Your task to perform on an android device: open app "ColorNote Notepad Notes" (install if not already installed), go to login, and select forgot password Image 0: 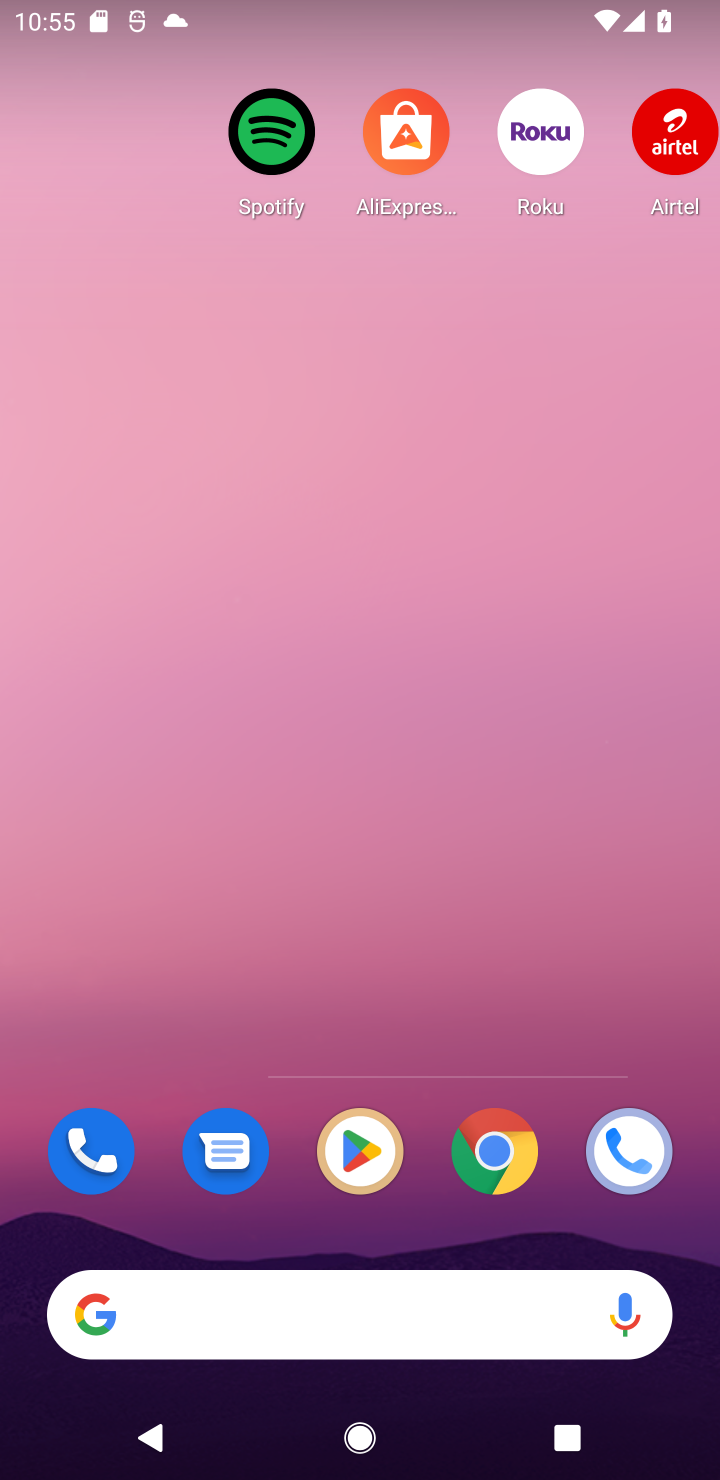
Step 0: press home button
Your task to perform on an android device: open app "ColorNote Notepad Notes" (install if not already installed), go to login, and select forgot password Image 1: 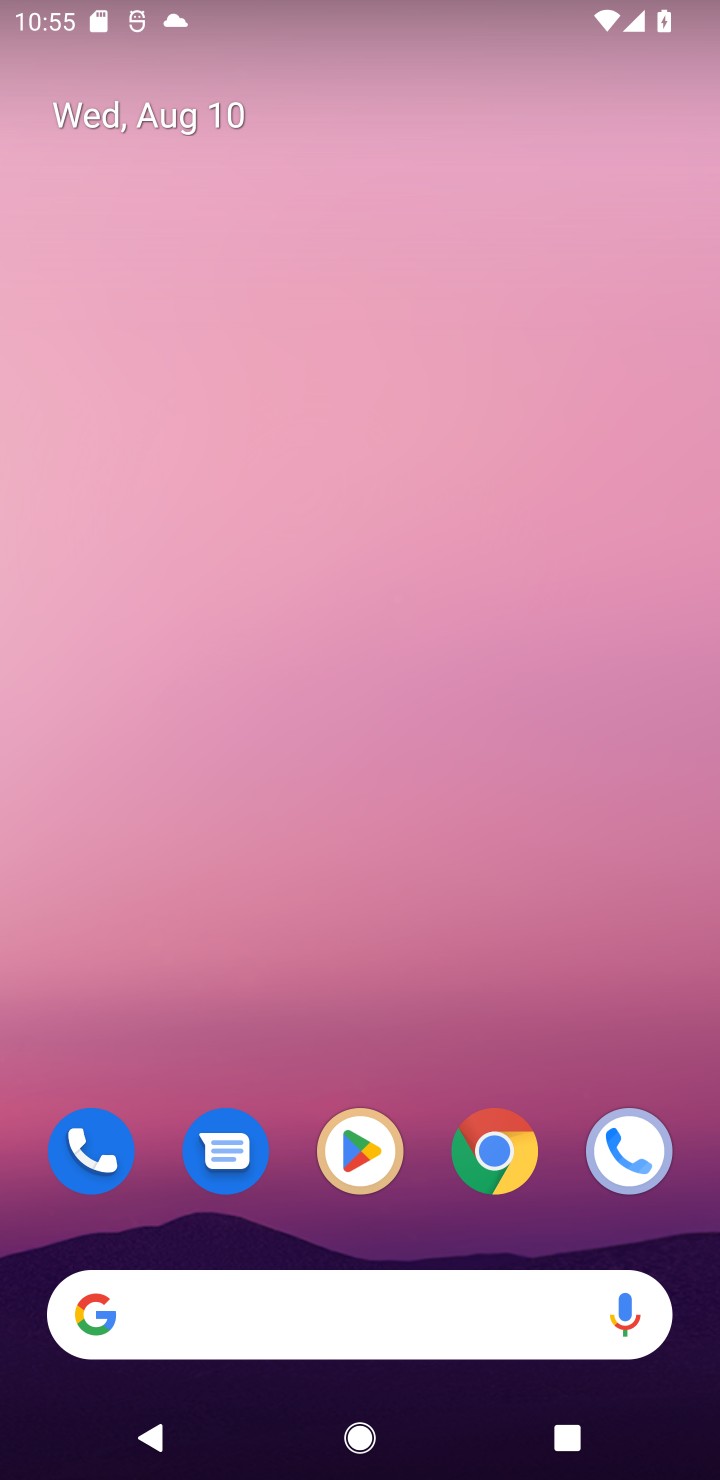
Step 1: drag from (425, 1088) to (528, 84)
Your task to perform on an android device: open app "ColorNote Notepad Notes" (install if not already installed), go to login, and select forgot password Image 2: 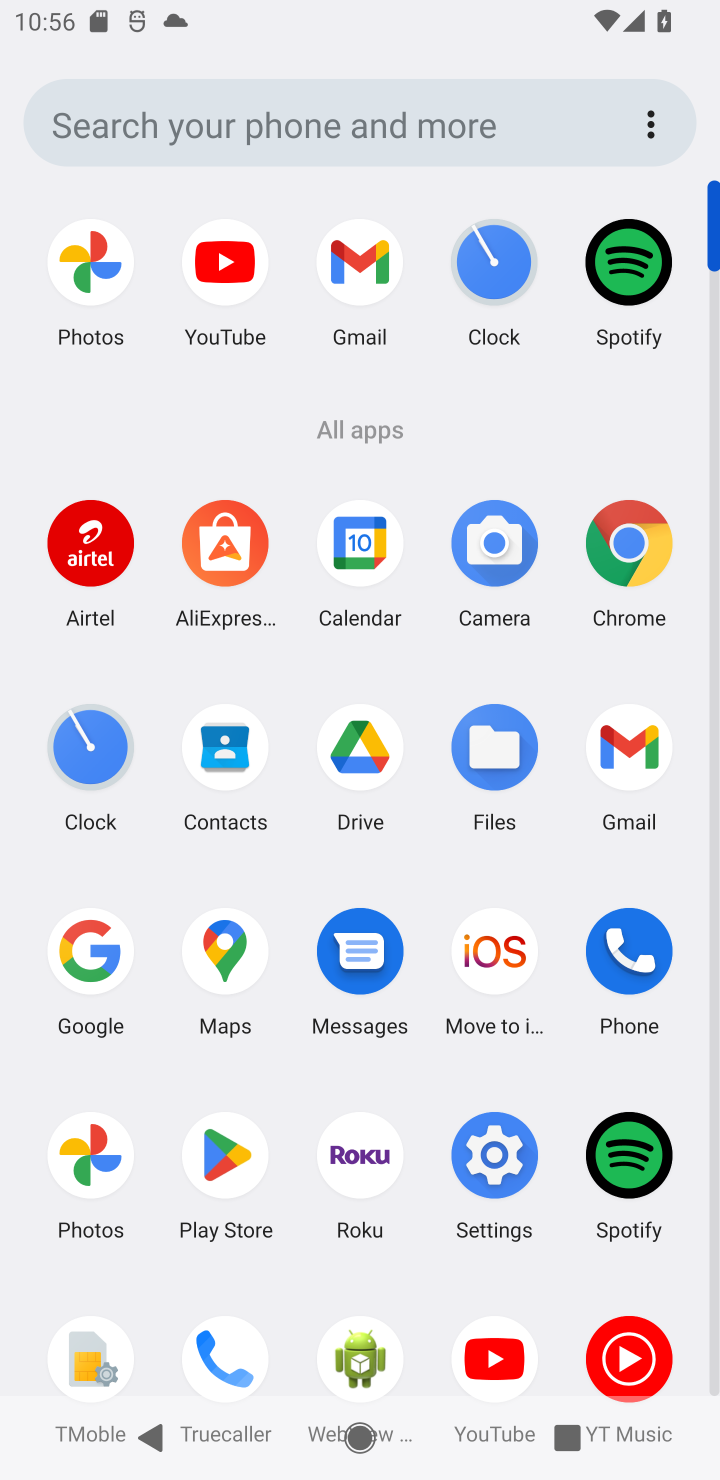
Step 2: click (216, 1147)
Your task to perform on an android device: open app "ColorNote Notepad Notes" (install if not already installed), go to login, and select forgot password Image 3: 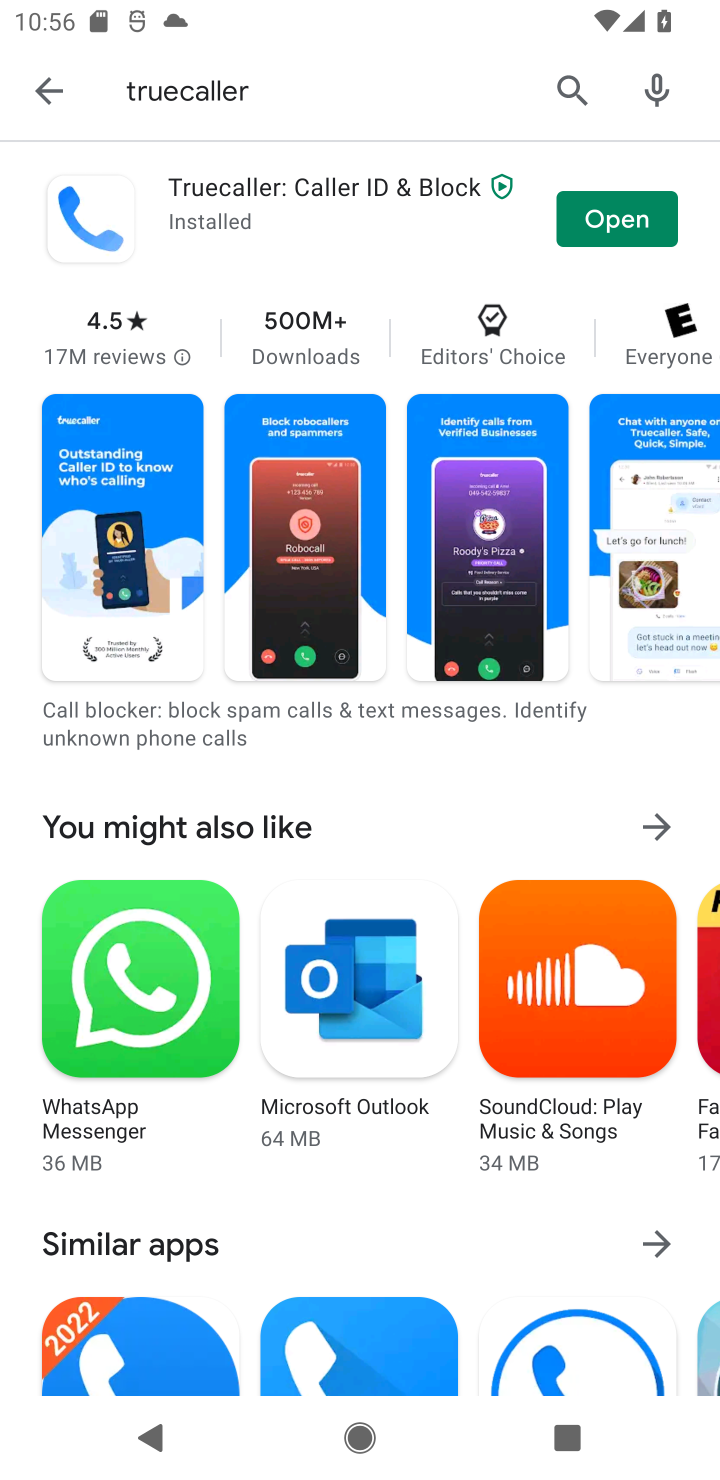
Step 3: click (563, 88)
Your task to perform on an android device: open app "ColorNote Notepad Notes" (install if not already installed), go to login, and select forgot password Image 4: 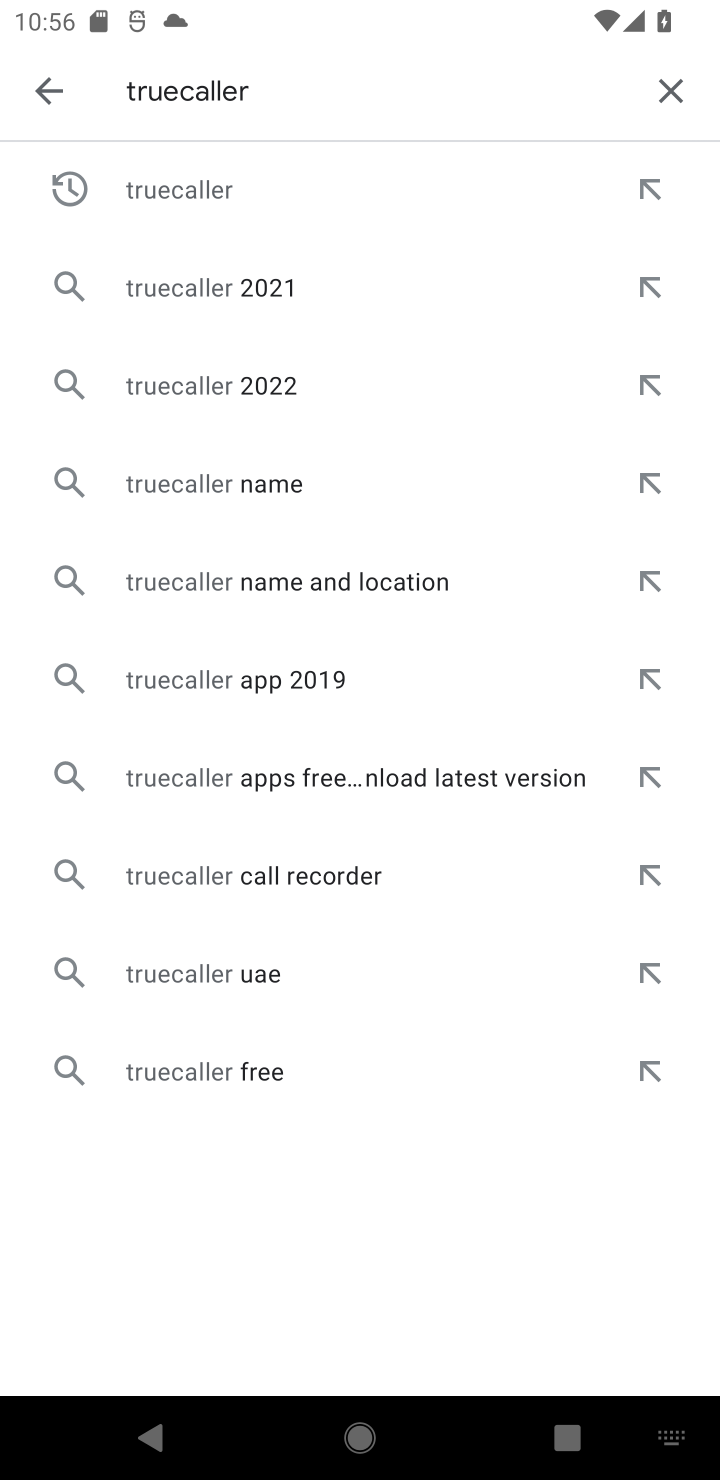
Step 4: click (663, 90)
Your task to perform on an android device: open app "ColorNote Notepad Notes" (install if not already installed), go to login, and select forgot password Image 5: 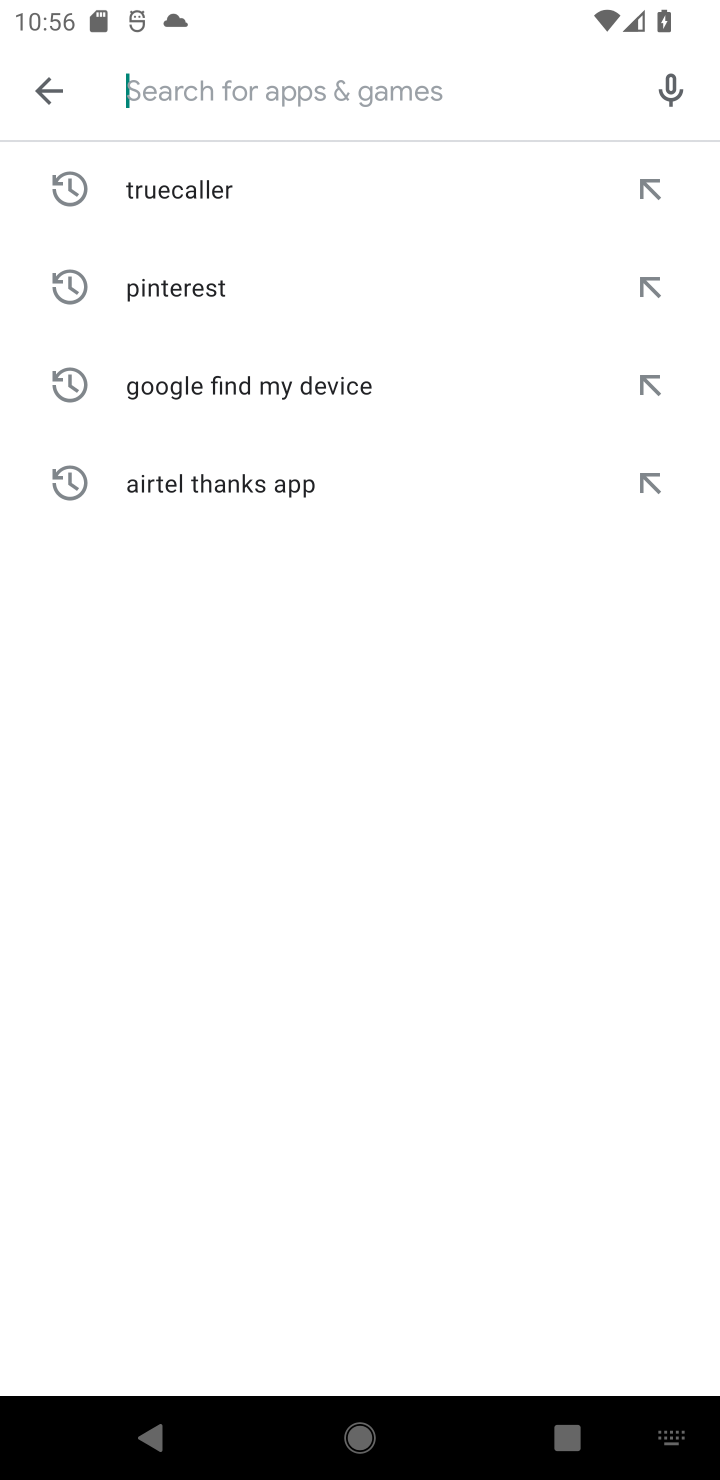
Step 5: type "ColorNote Notepad Notes"
Your task to perform on an android device: open app "ColorNote Notepad Notes" (install if not already installed), go to login, and select forgot password Image 6: 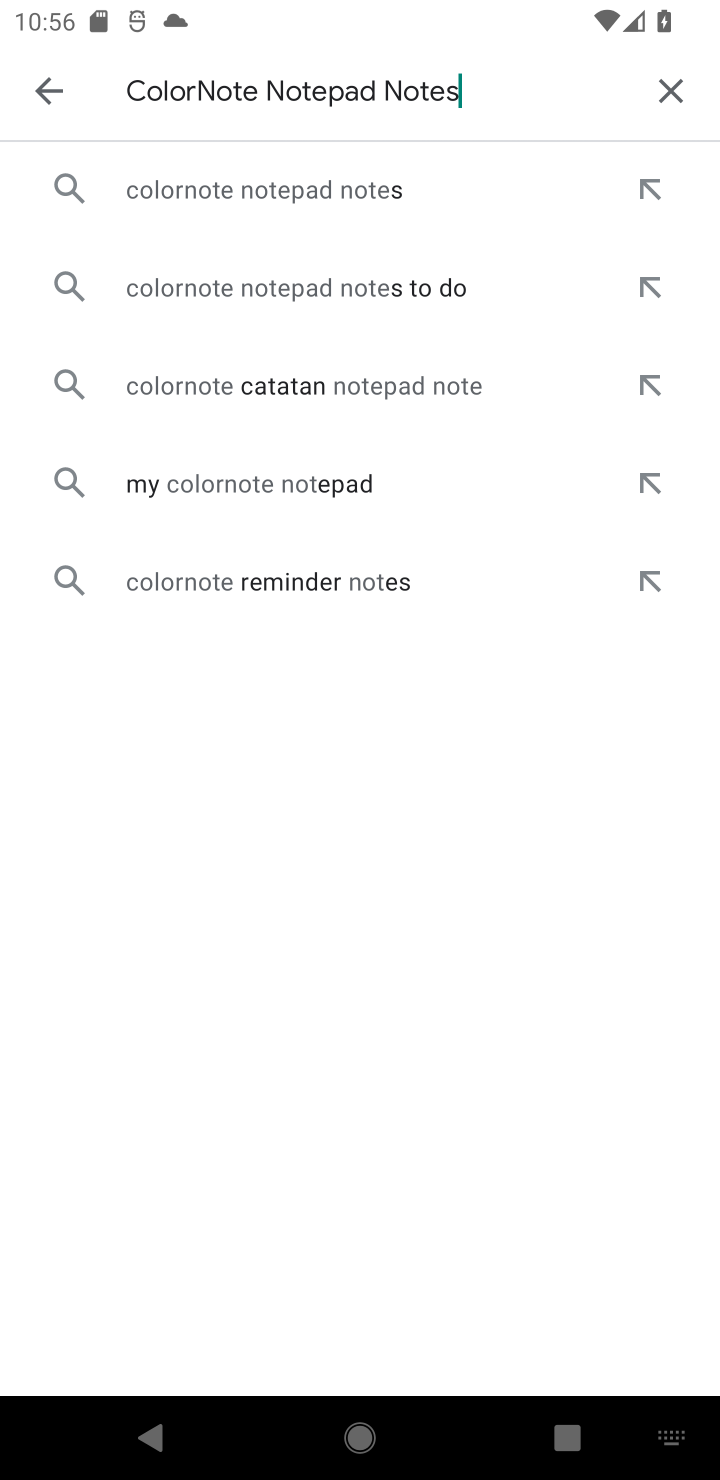
Step 6: type ""
Your task to perform on an android device: open app "ColorNote Notepad Notes" (install if not already installed), go to login, and select forgot password Image 7: 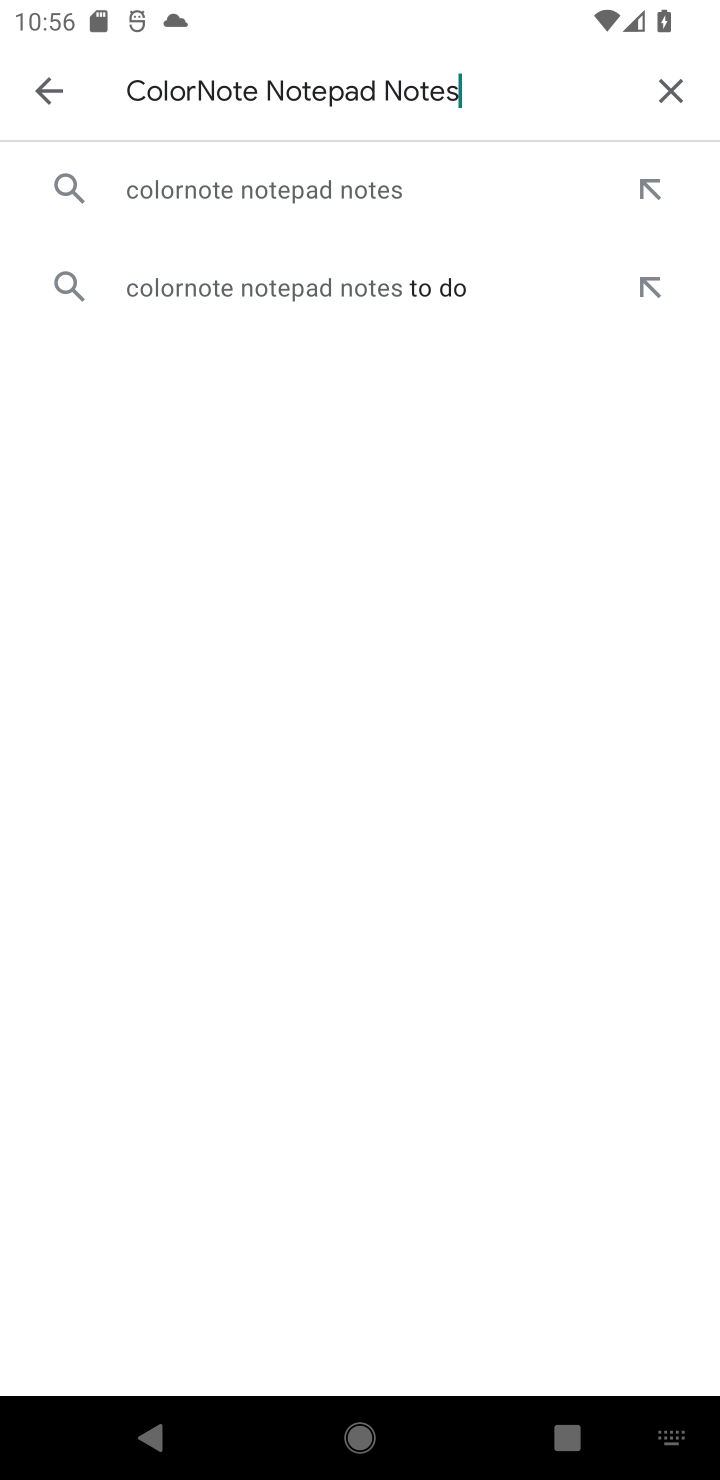
Step 7: click (224, 198)
Your task to perform on an android device: open app "ColorNote Notepad Notes" (install if not already installed), go to login, and select forgot password Image 8: 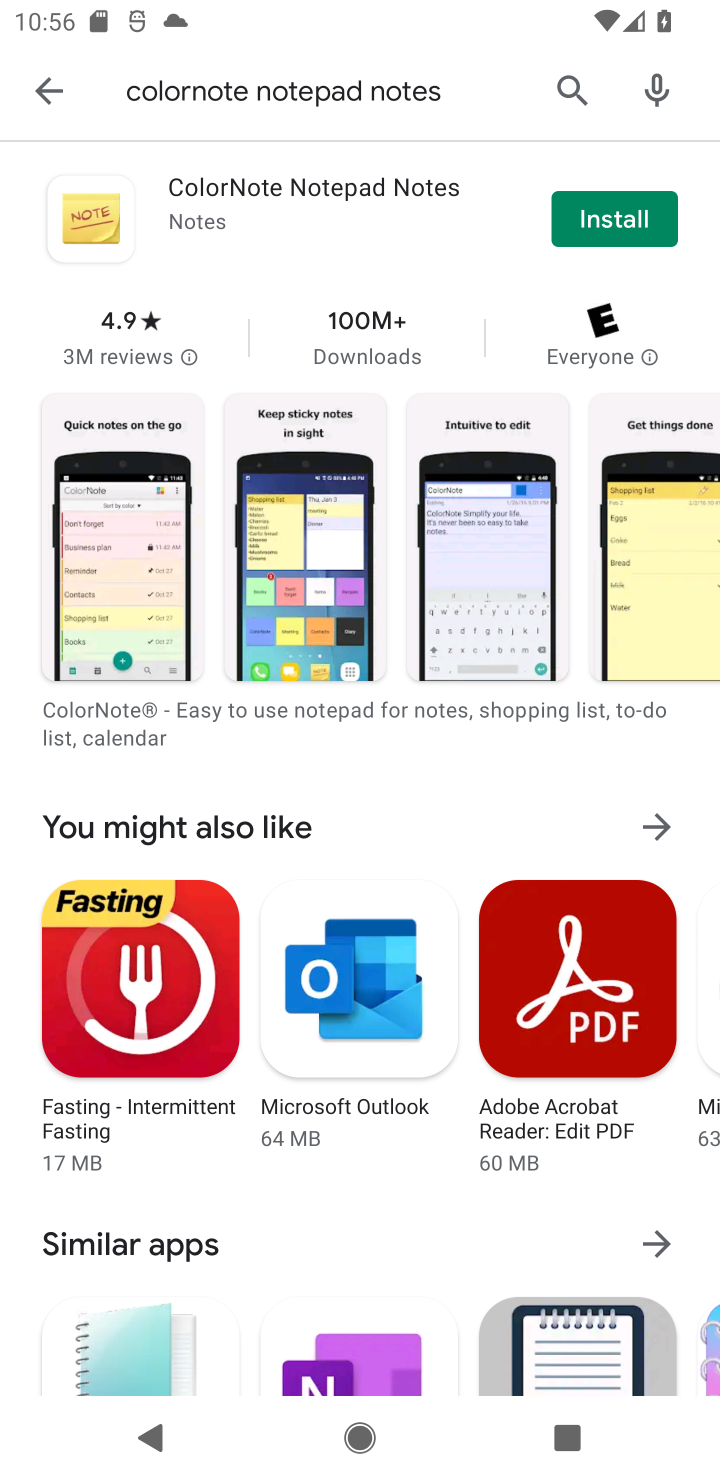
Step 8: click (609, 215)
Your task to perform on an android device: open app "ColorNote Notepad Notes" (install if not already installed), go to login, and select forgot password Image 9: 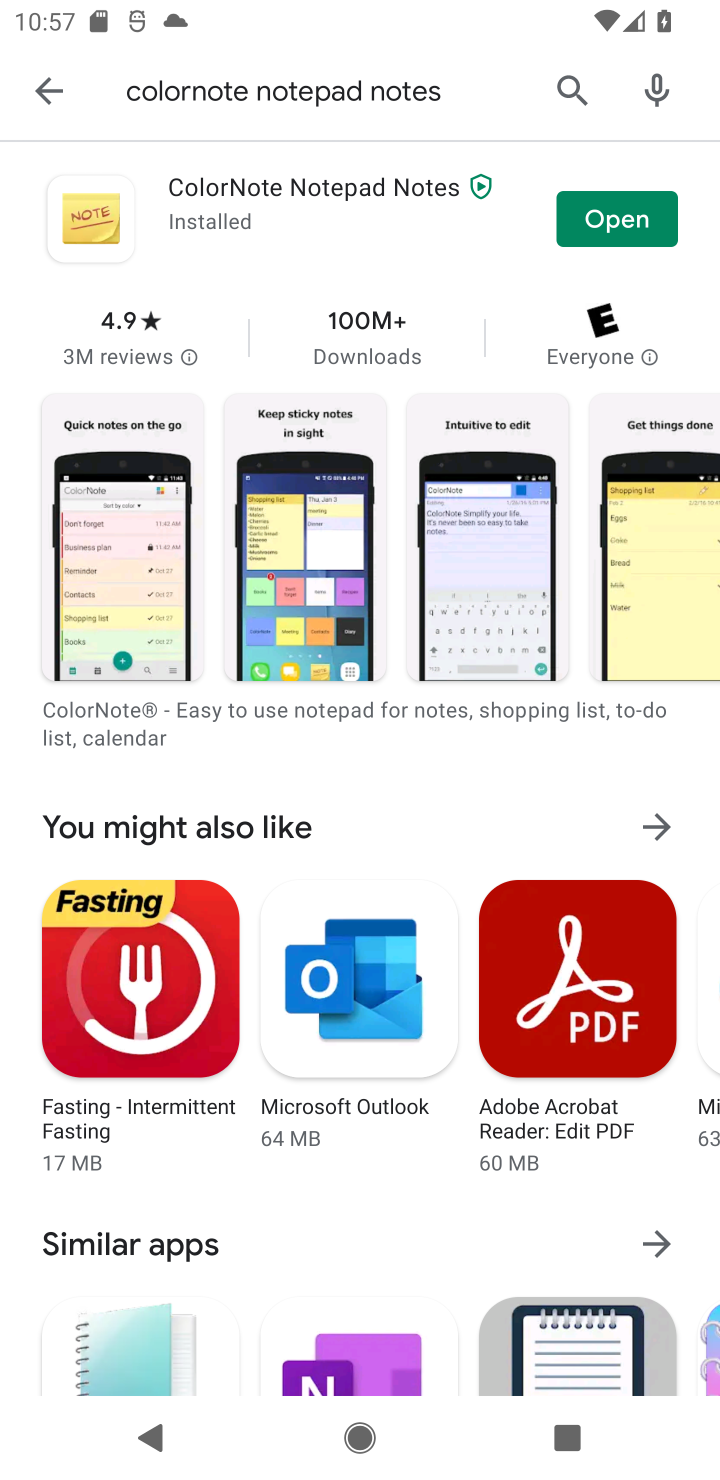
Step 9: click (632, 208)
Your task to perform on an android device: open app "ColorNote Notepad Notes" (install if not already installed), go to login, and select forgot password Image 10: 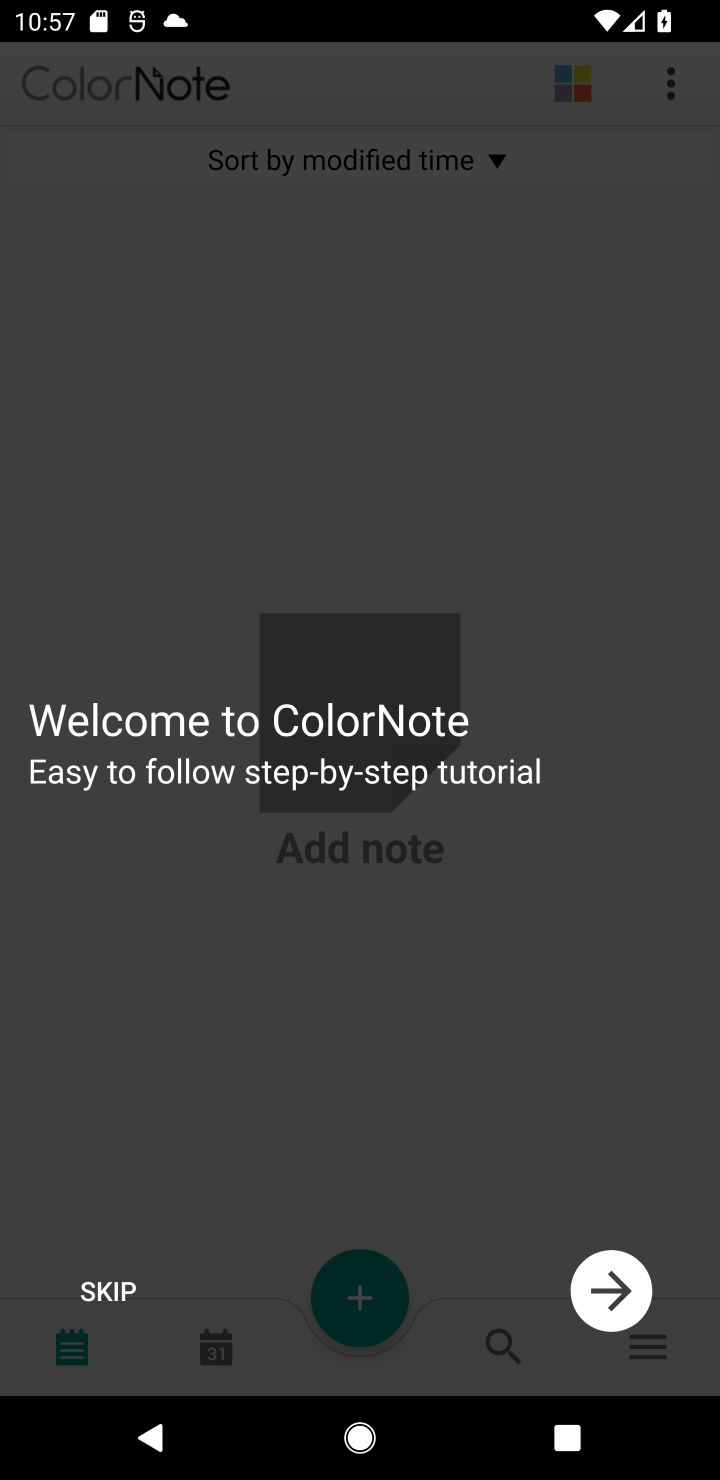
Step 10: click (608, 1299)
Your task to perform on an android device: open app "ColorNote Notepad Notes" (install if not already installed), go to login, and select forgot password Image 11: 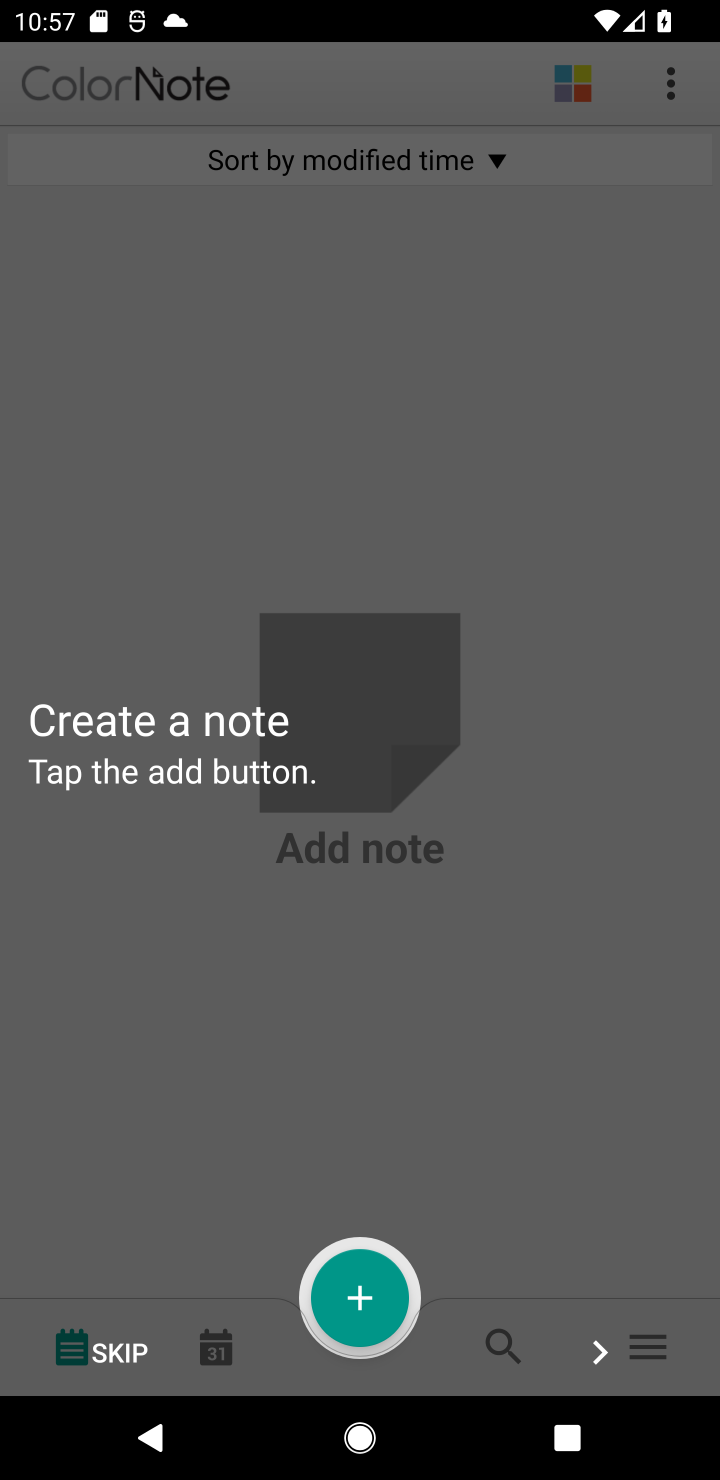
Step 11: click (349, 1267)
Your task to perform on an android device: open app "ColorNote Notepad Notes" (install if not already installed), go to login, and select forgot password Image 12: 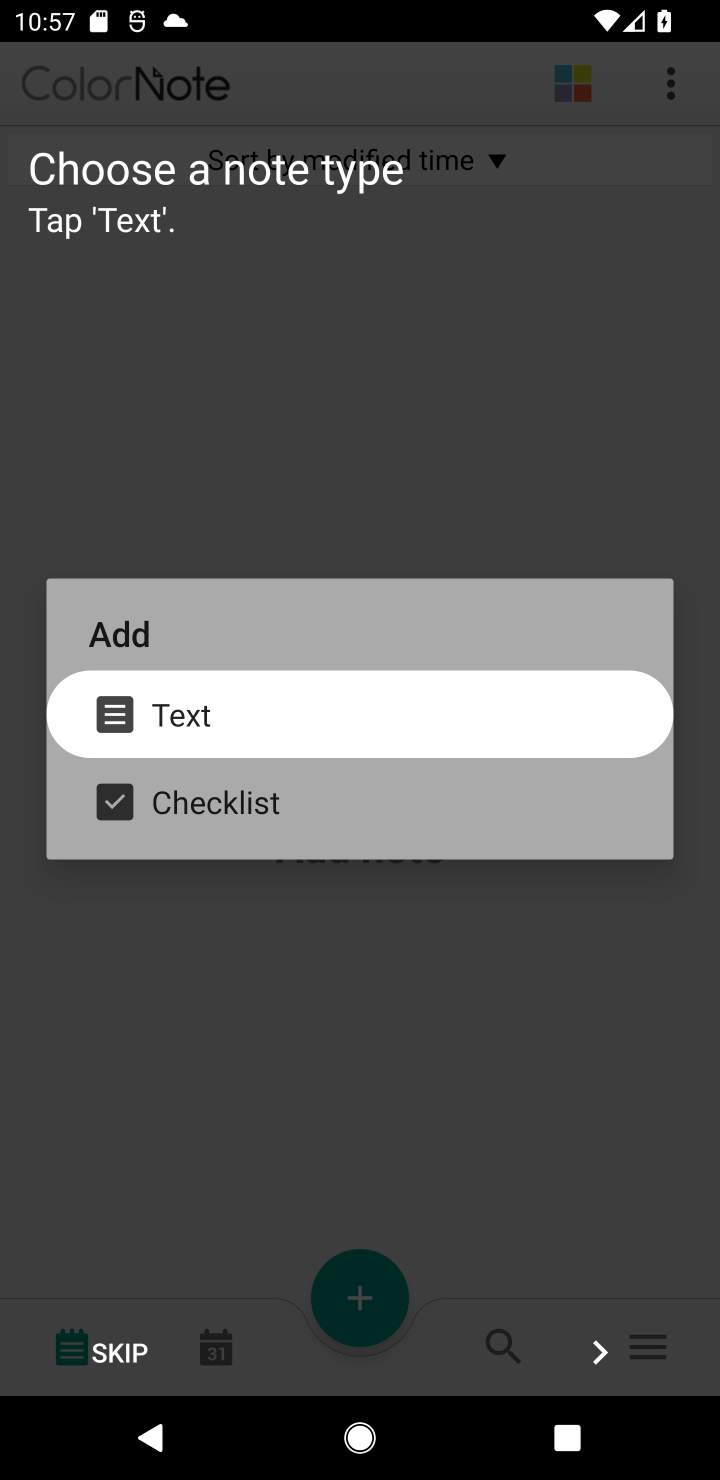
Step 12: click (388, 998)
Your task to perform on an android device: open app "ColorNote Notepad Notes" (install if not already installed), go to login, and select forgot password Image 13: 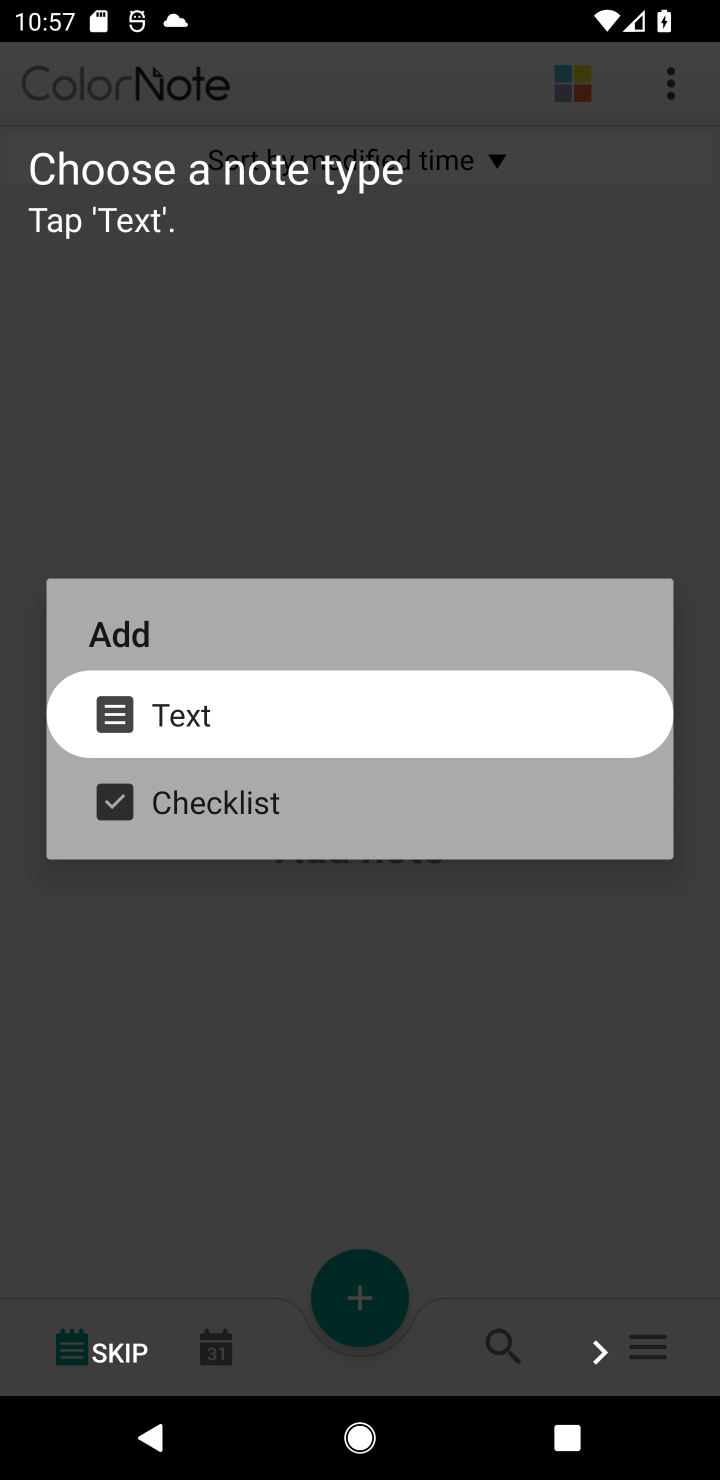
Step 13: click (237, 986)
Your task to perform on an android device: open app "ColorNote Notepad Notes" (install if not already installed), go to login, and select forgot password Image 14: 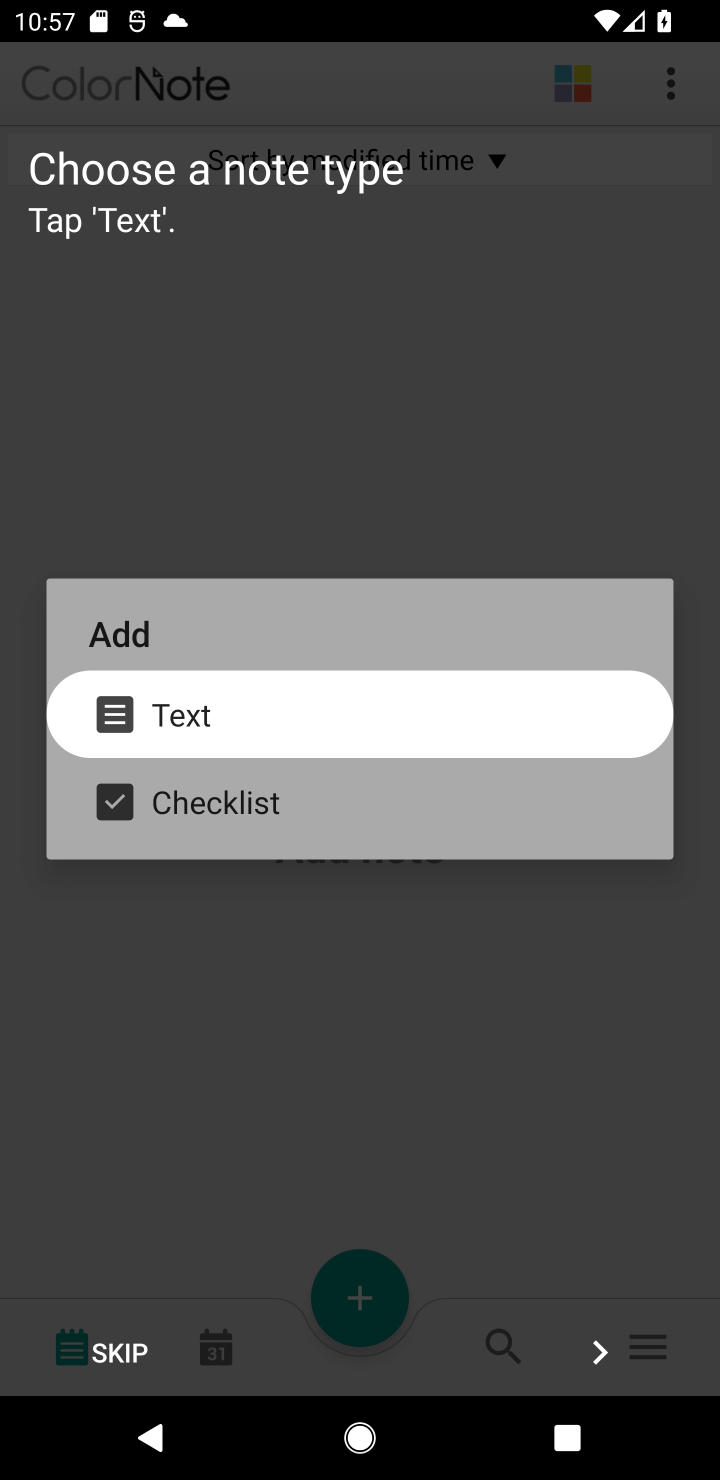
Step 14: click (114, 1355)
Your task to perform on an android device: open app "ColorNote Notepad Notes" (install if not already installed), go to login, and select forgot password Image 15: 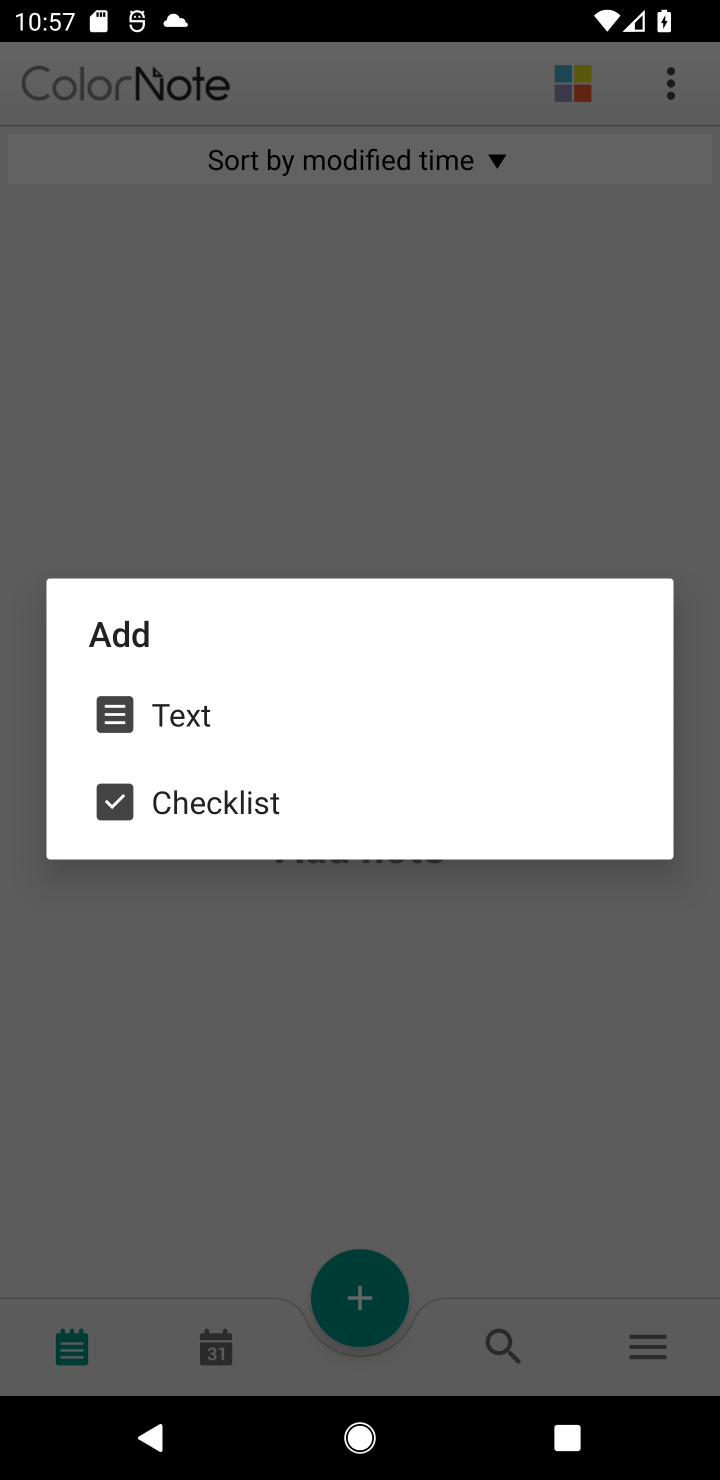
Step 15: click (177, 951)
Your task to perform on an android device: open app "ColorNote Notepad Notes" (install if not already installed), go to login, and select forgot password Image 16: 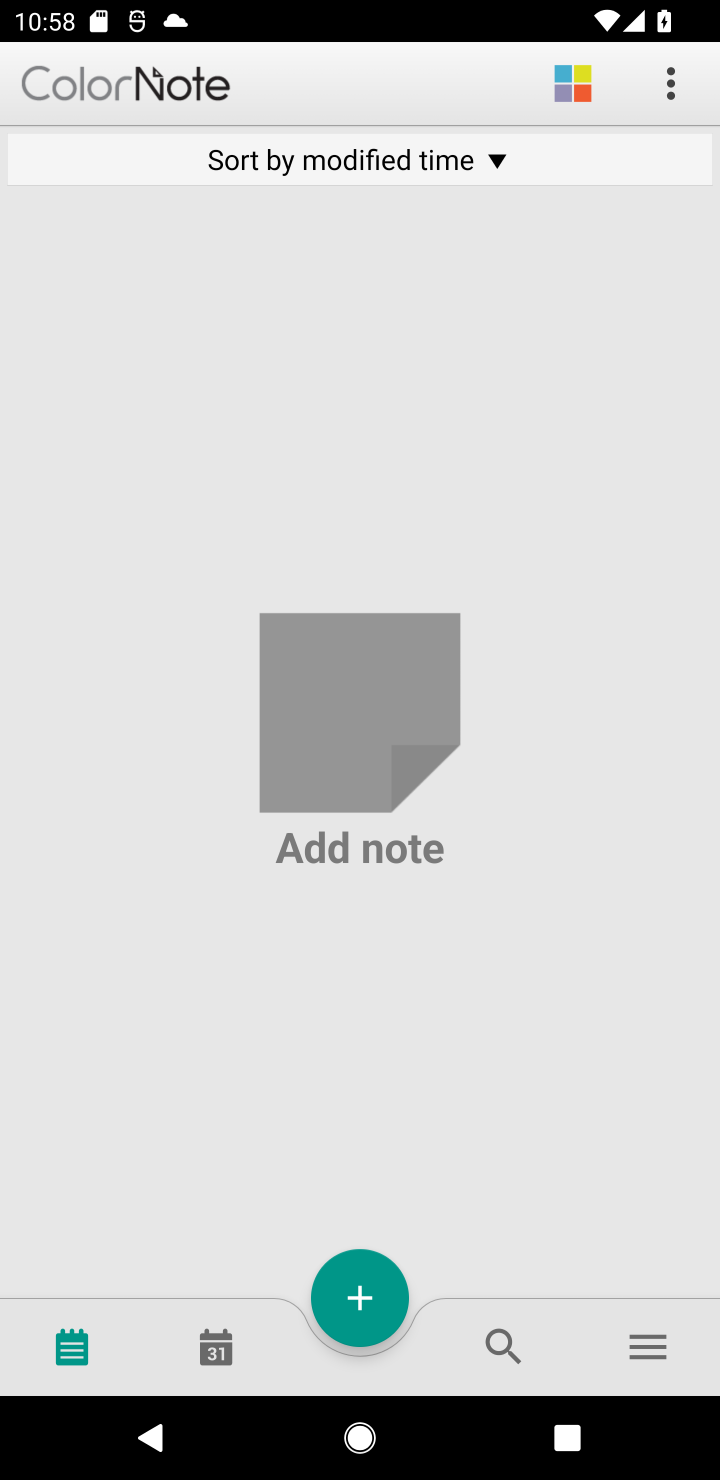
Step 16: click (638, 1348)
Your task to perform on an android device: open app "ColorNote Notepad Notes" (install if not already installed), go to login, and select forgot password Image 17: 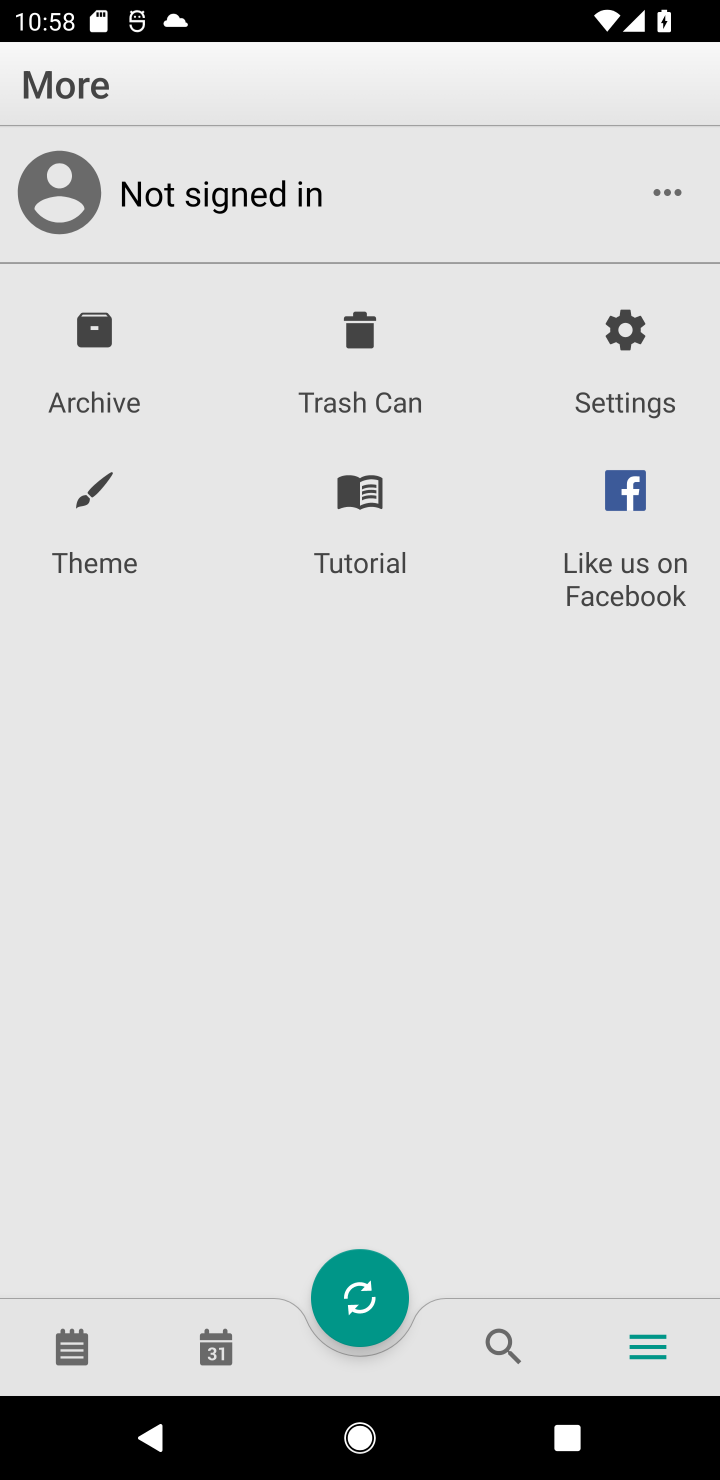
Step 17: click (129, 198)
Your task to perform on an android device: open app "ColorNote Notepad Notes" (install if not already installed), go to login, and select forgot password Image 18: 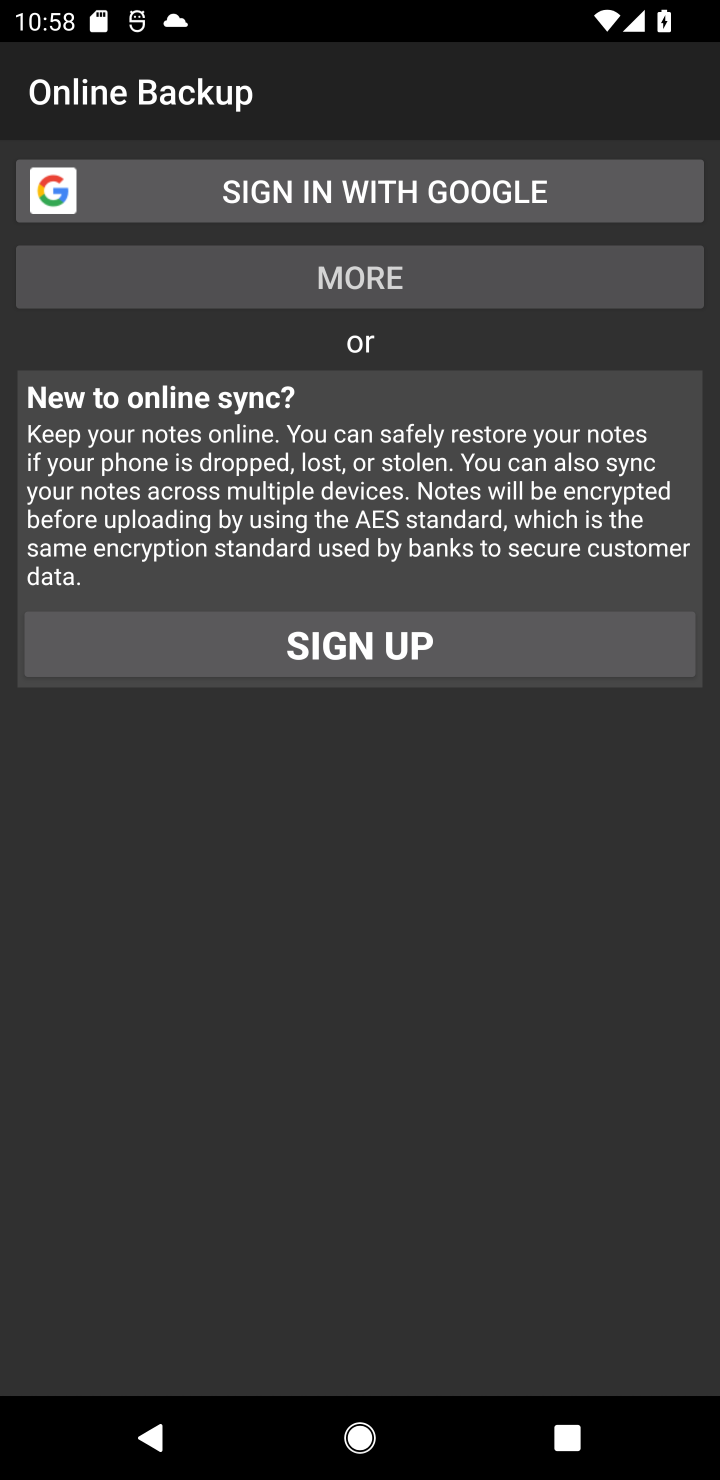
Step 18: click (395, 650)
Your task to perform on an android device: open app "ColorNote Notepad Notes" (install if not already installed), go to login, and select forgot password Image 19: 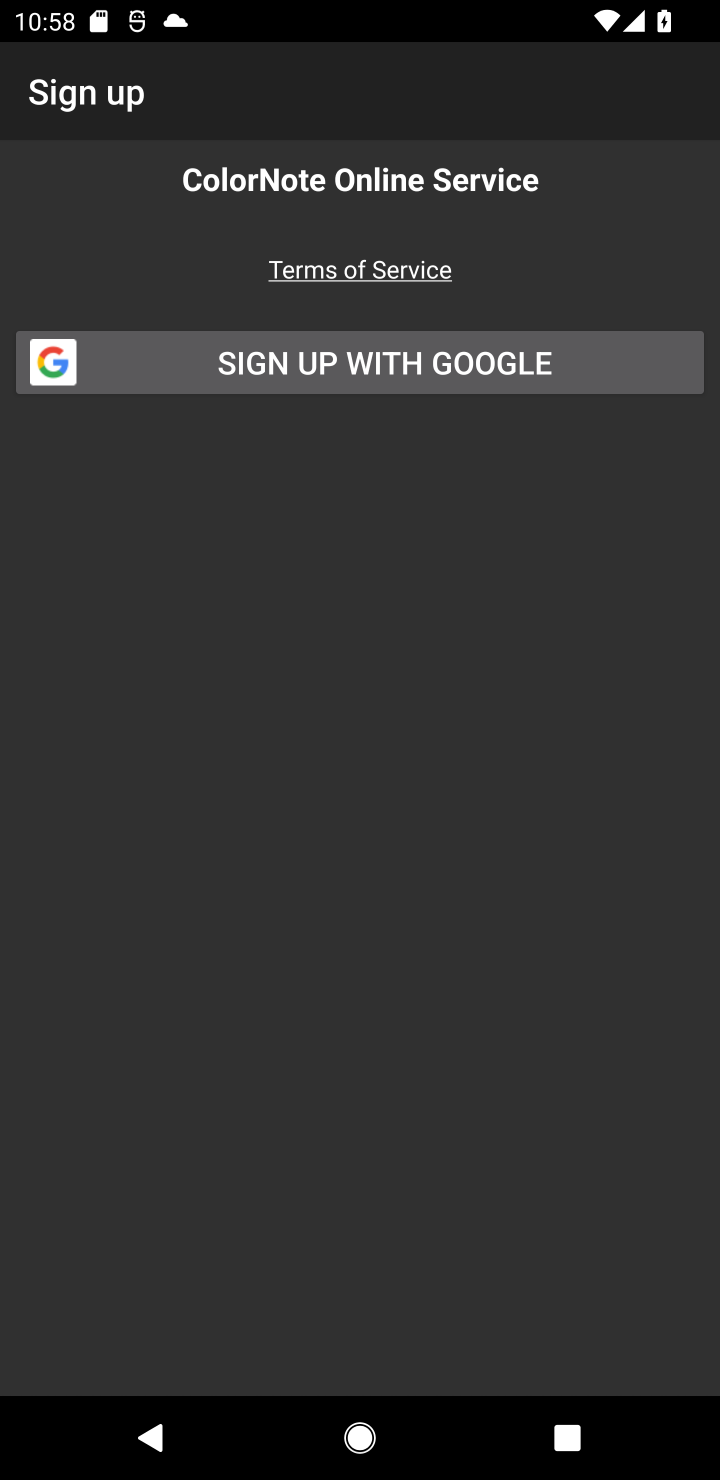
Step 19: task complete